Your task to perform on an android device: Go to Reddit.com Image 0: 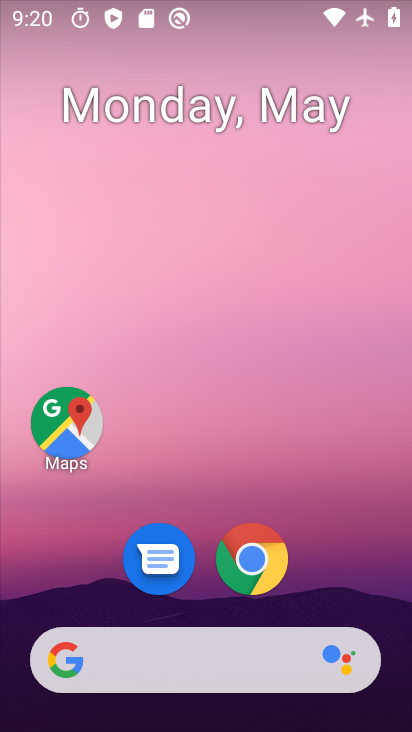
Step 0: click (256, 563)
Your task to perform on an android device: Go to Reddit.com Image 1: 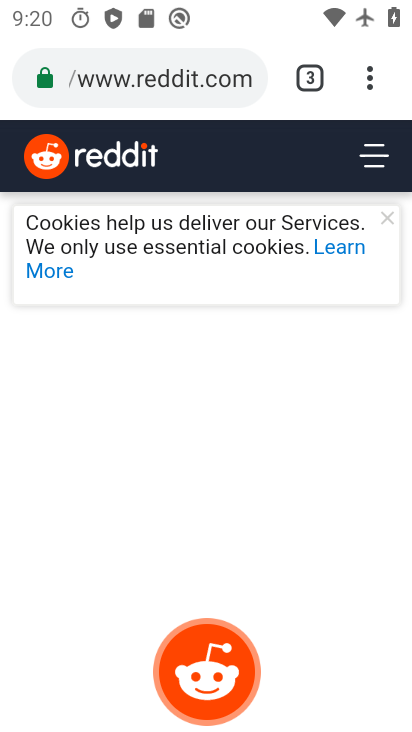
Step 1: task complete